Your task to perform on an android device: open app "Grab" (install if not already installed), go to login, and select forgot password Image 0: 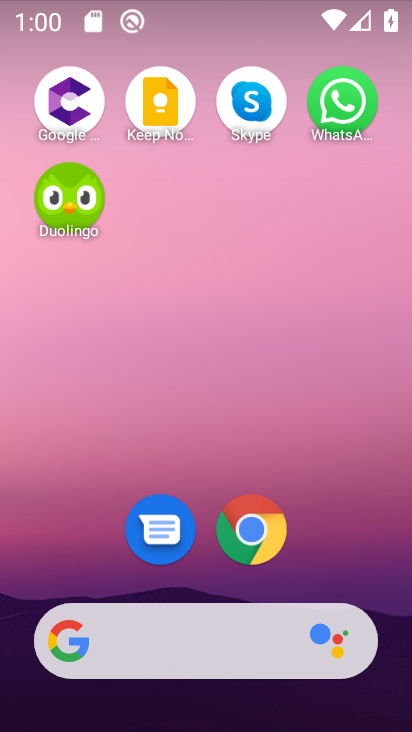
Step 0: drag from (317, 564) to (301, 200)
Your task to perform on an android device: open app "Grab" (install if not already installed), go to login, and select forgot password Image 1: 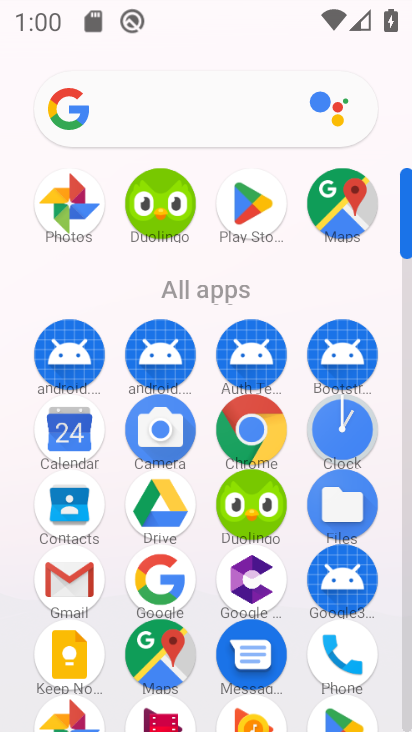
Step 1: click (244, 211)
Your task to perform on an android device: open app "Grab" (install if not already installed), go to login, and select forgot password Image 2: 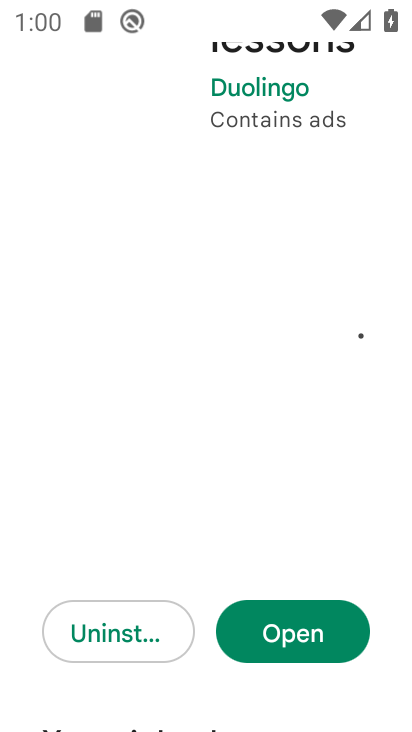
Step 2: drag from (215, 164) to (217, 558)
Your task to perform on an android device: open app "Grab" (install if not already installed), go to login, and select forgot password Image 3: 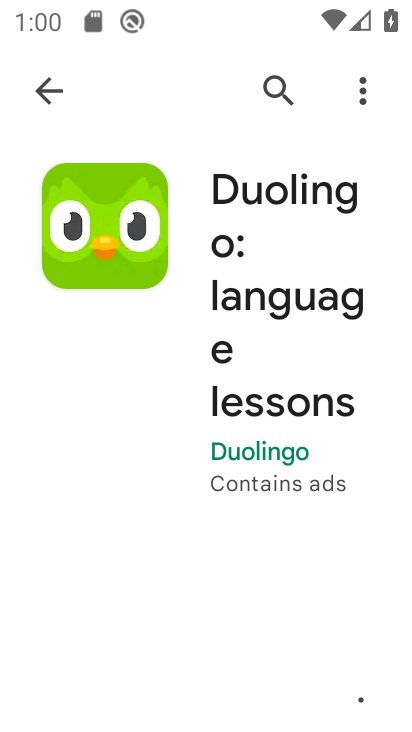
Step 3: click (44, 88)
Your task to perform on an android device: open app "Grab" (install if not already installed), go to login, and select forgot password Image 4: 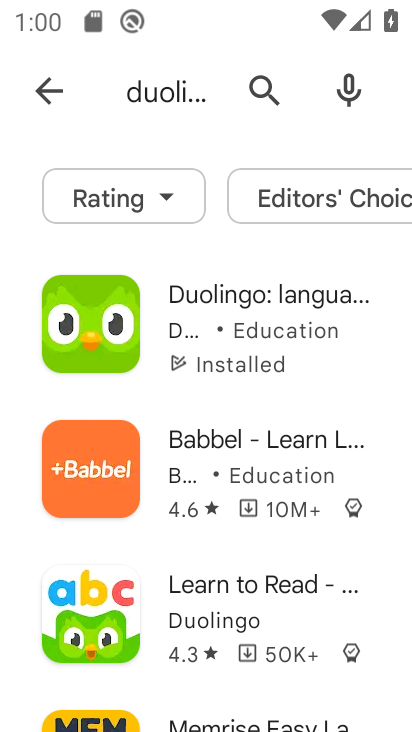
Step 4: click (268, 83)
Your task to perform on an android device: open app "Grab" (install if not already installed), go to login, and select forgot password Image 5: 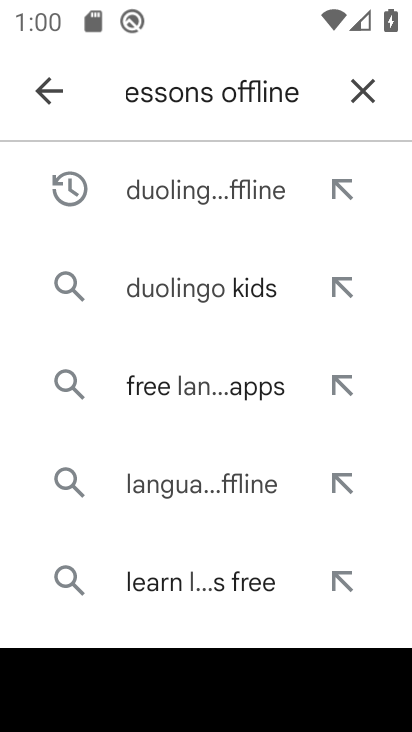
Step 5: click (377, 83)
Your task to perform on an android device: open app "Grab" (install if not already installed), go to login, and select forgot password Image 6: 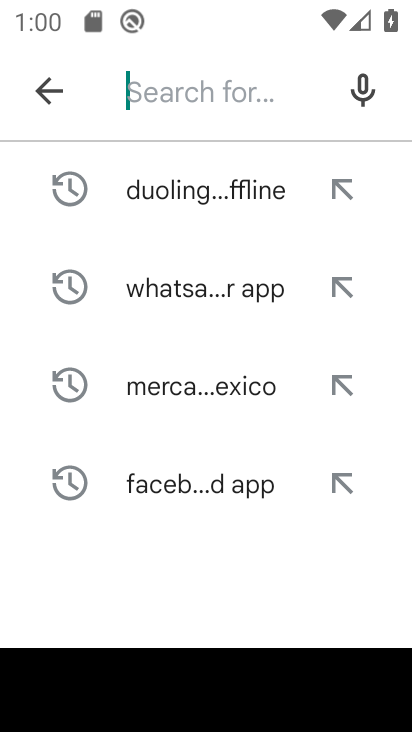
Step 6: click (174, 85)
Your task to perform on an android device: open app "Grab" (install if not already installed), go to login, and select forgot password Image 7: 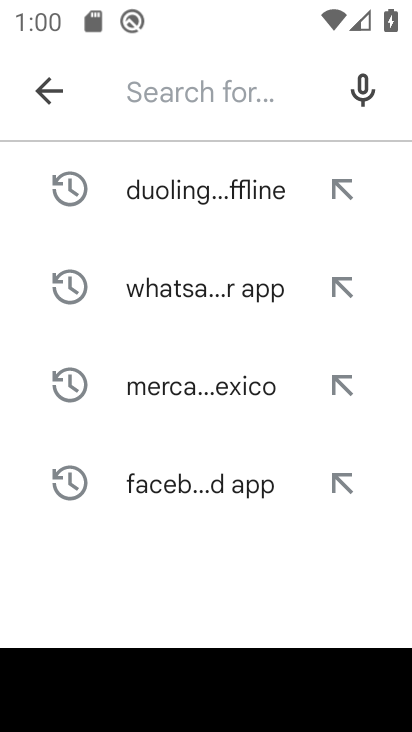
Step 7: type "grab "
Your task to perform on an android device: open app "Grab" (install if not already installed), go to login, and select forgot password Image 8: 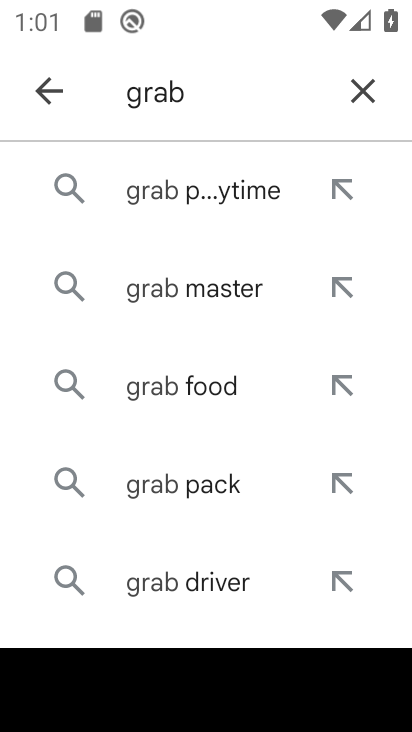
Step 8: click (194, 367)
Your task to perform on an android device: open app "Grab" (install if not already installed), go to login, and select forgot password Image 9: 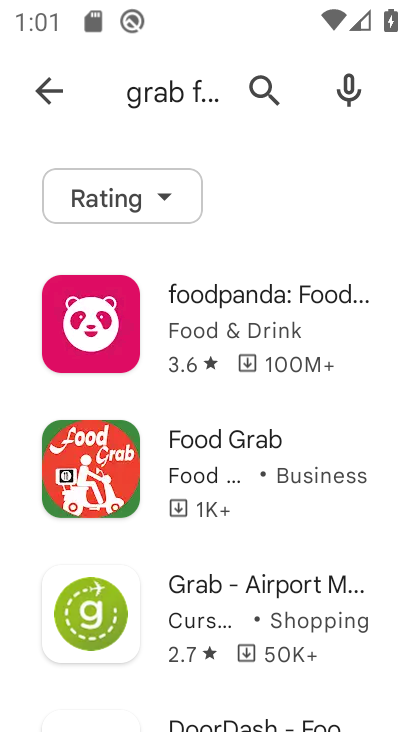
Step 9: click (228, 434)
Your task to perform on an android device: open app "Grab" (install if not already installed), go to login, and select forgot password Image 10: 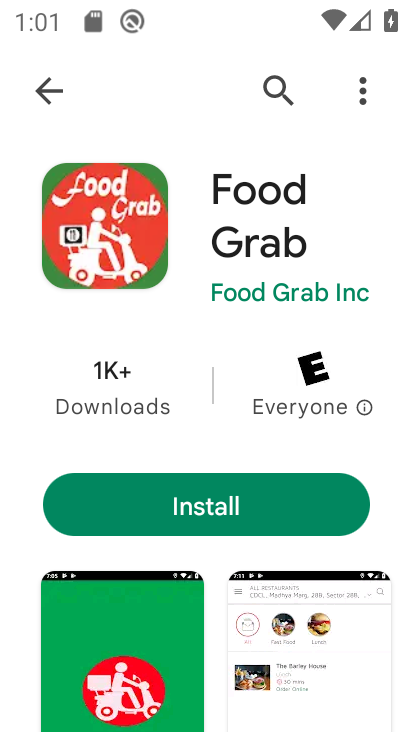
Step 10: click (43, 73)
Your task to perform on an android device: open app "Grab" (install if not already installed), go to login, and select forgot password Image 11: 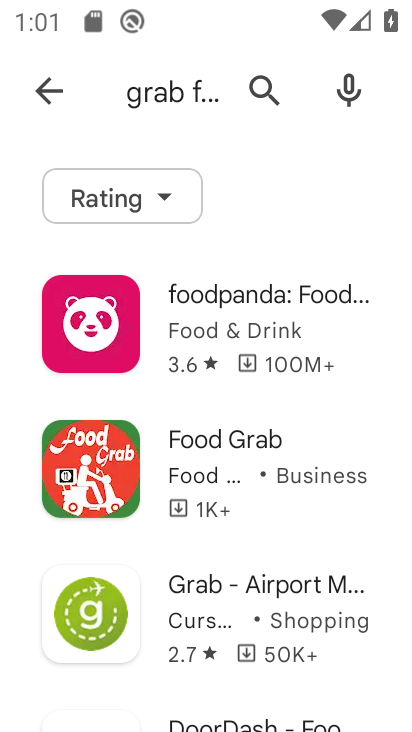
Step 11: click (233, 582)
Your task to perform on an android device: open app "Grab" (install if not already installed), go to login, and select forgot password Image 12: 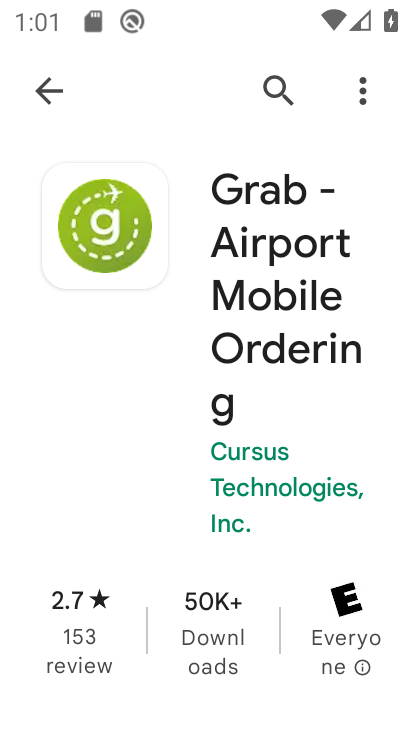
Step 12: drag from (142, 553) to (218, 137)
Your task to perform on an android device: open app "Grab" (install if not already installed), go to login, and select forgot password Image 13: 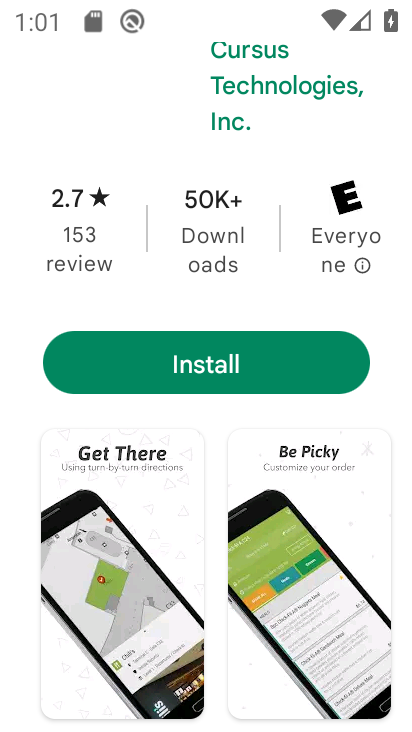
Step 13: click (190, 369)
Your task to perform on an android device: open app "Grab" (install if not already installed), go to login, and select forgot password Image 14: 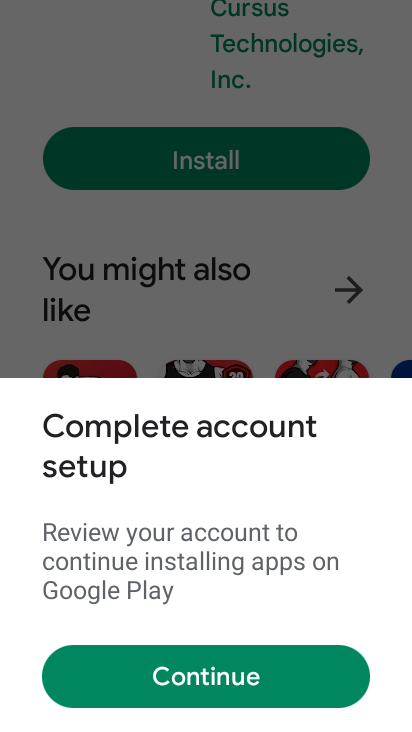
Step 14: task complete